Your task to perform on an android device: change the upload size in google photos Image 0: 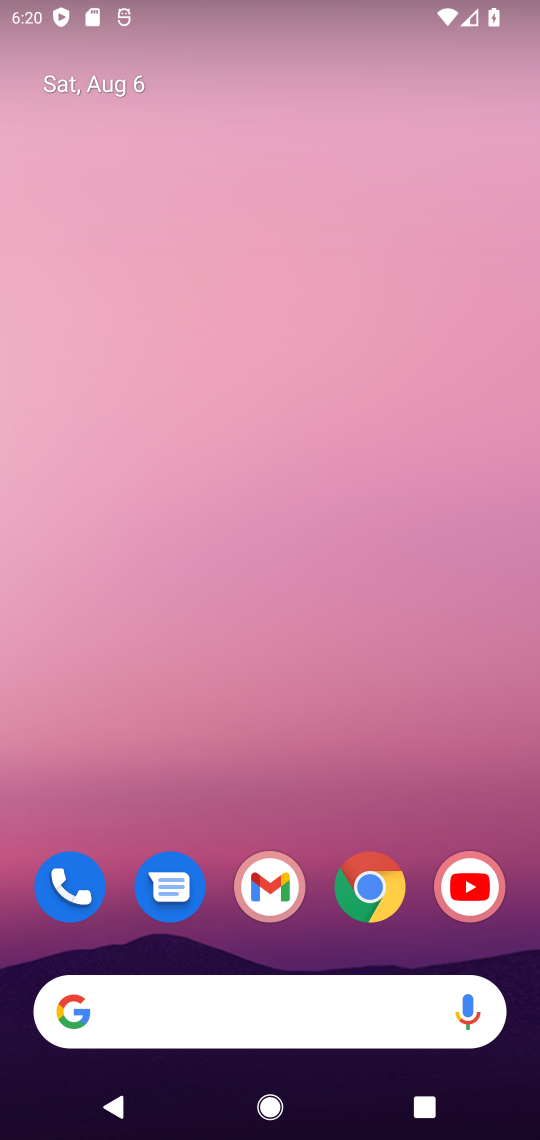
Step 0: drag from (231, 539) to (204, 493)
Your task to perform on an android device: change the upload size in google photos Image 1: 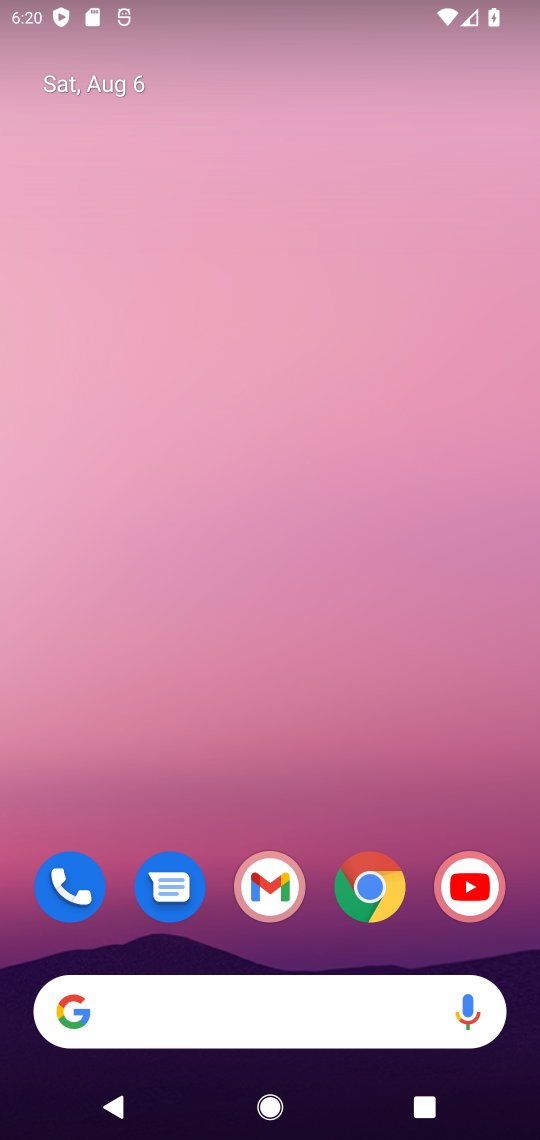
Step 1: drag from (299, 900) to (112, 256)
Your task to perform on an android device: change the upload size in google photos Image 2: 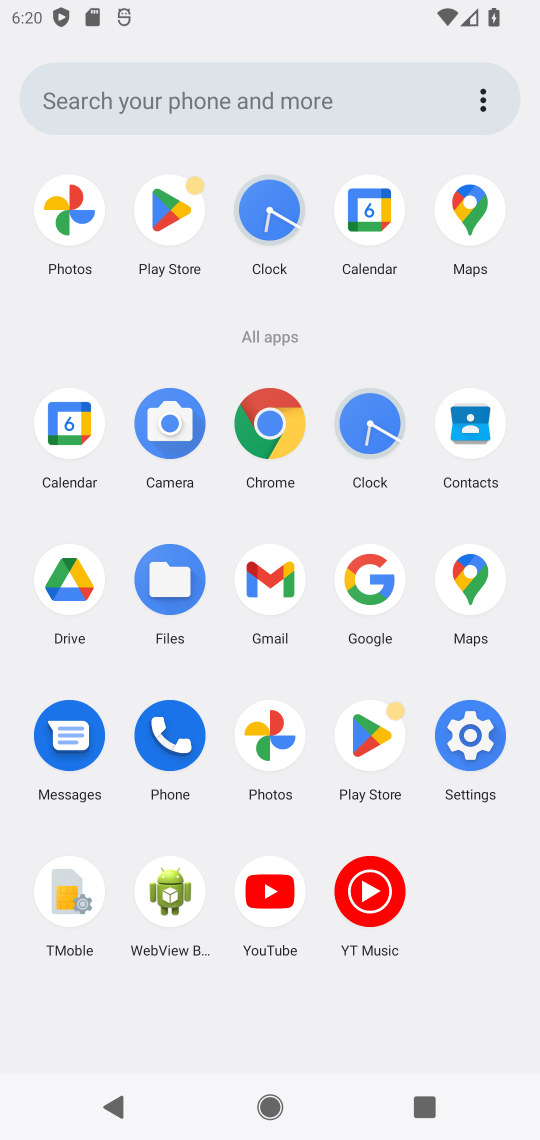
Step 2: drag from (256, 667) to (302, 511)
Your task to perform on an android device: change the upload size in google photos Image 3: 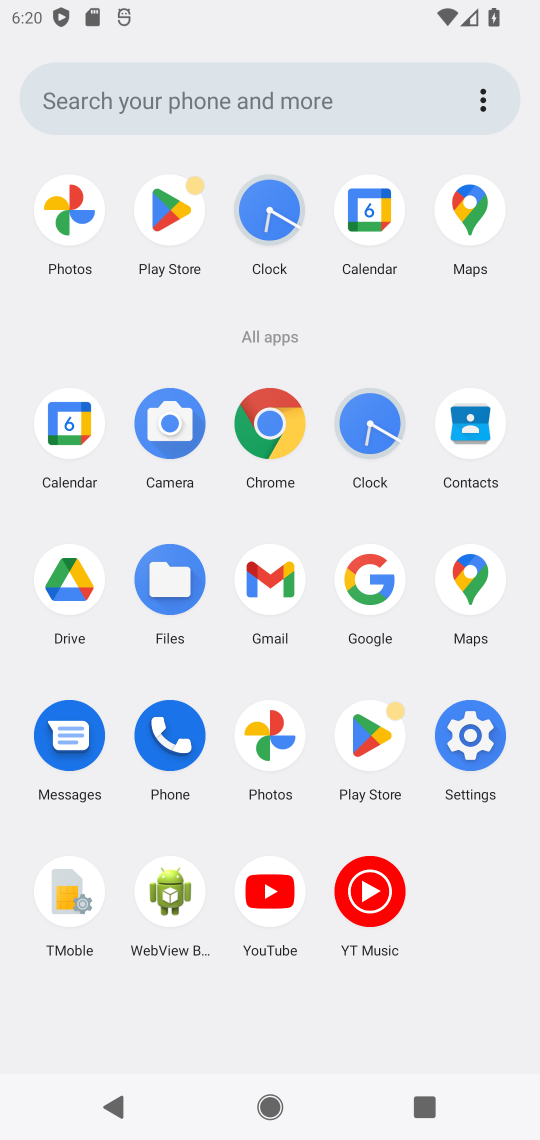
Step 3: click (270, 756)
Your task to perform on an android device: change the upload size in google photos Image 4: 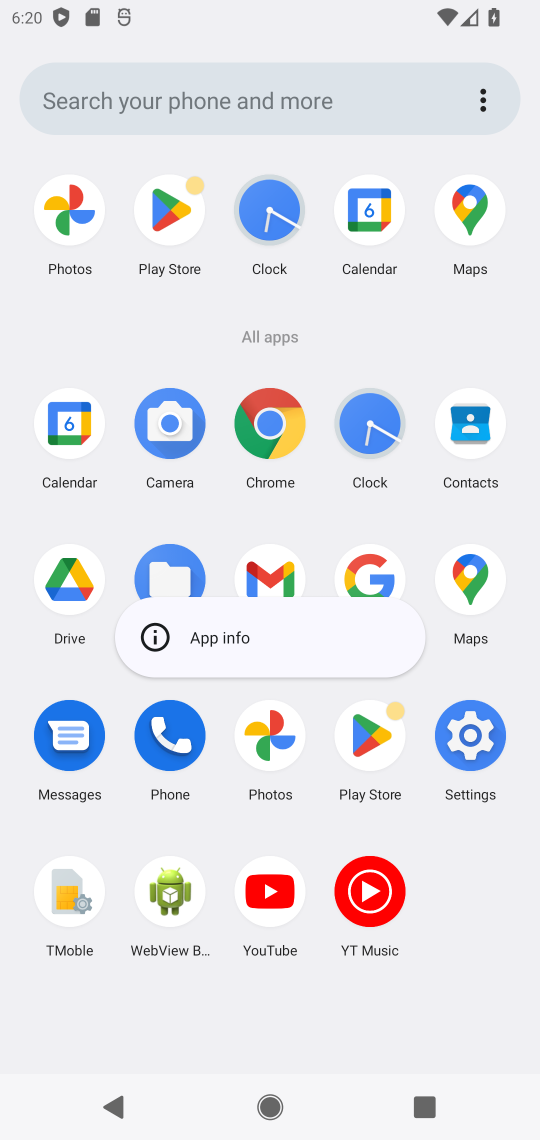
Step 4: click (279, 738)
Your task to perform on an android device: change the upload size in google photos Image 5: 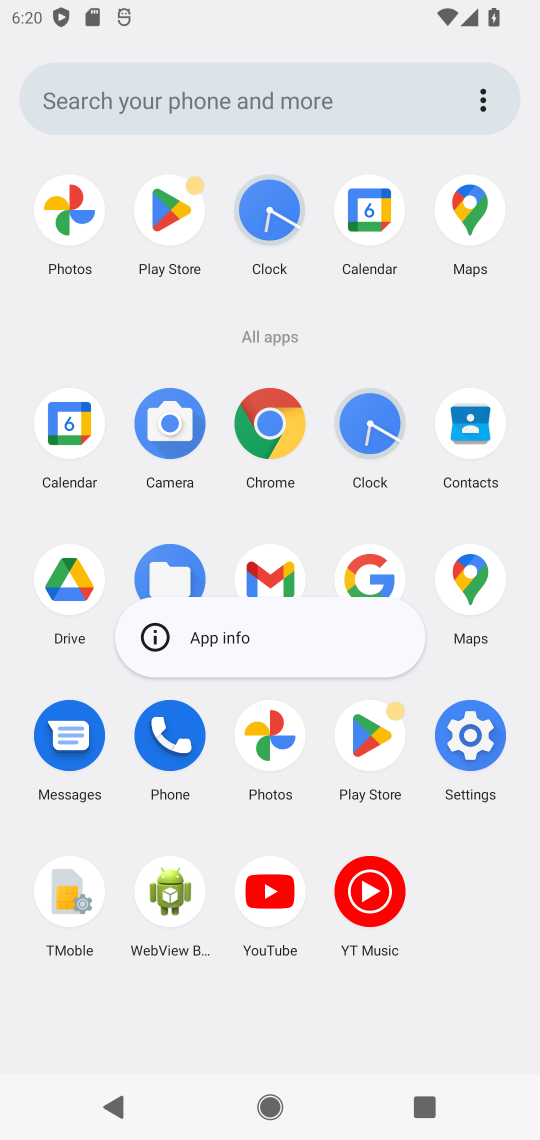
Step 5: click (261, 751)
Your task to perform on an android device: change the upload size in google photos Image 6: 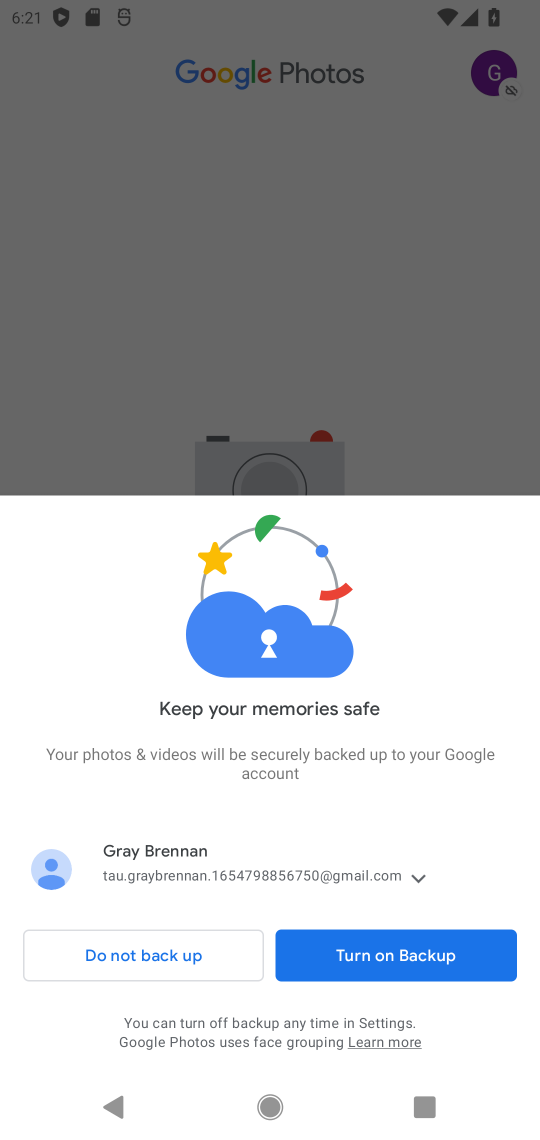
Step 6: click (74, 279)
Your task to perform on an android device: change the upload size in google photos Image 7: 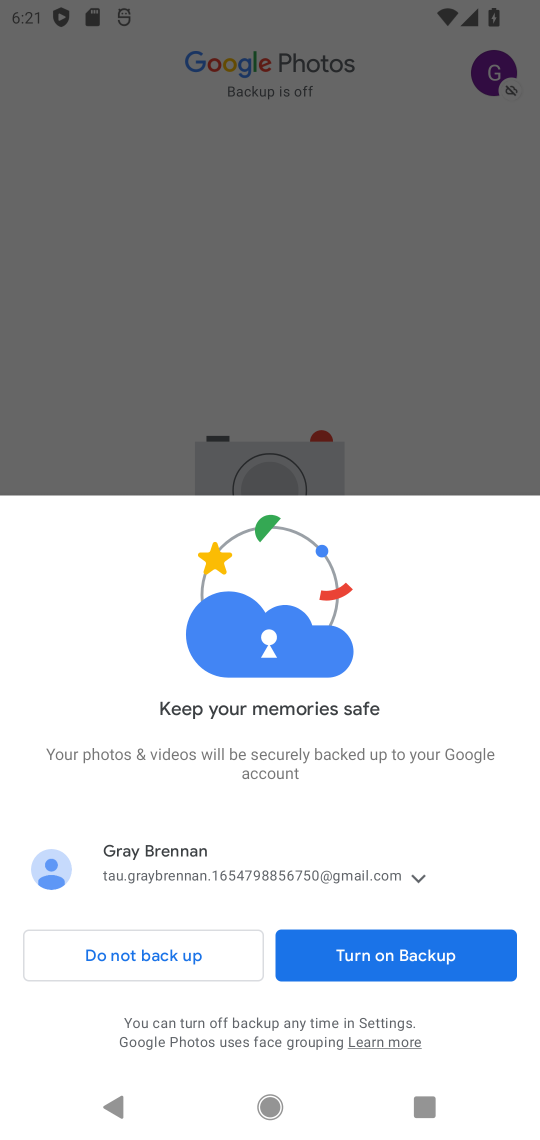
Step 7: click (172, 943)
Your task to perform on an android device: change the upload size in google photos Image 8: 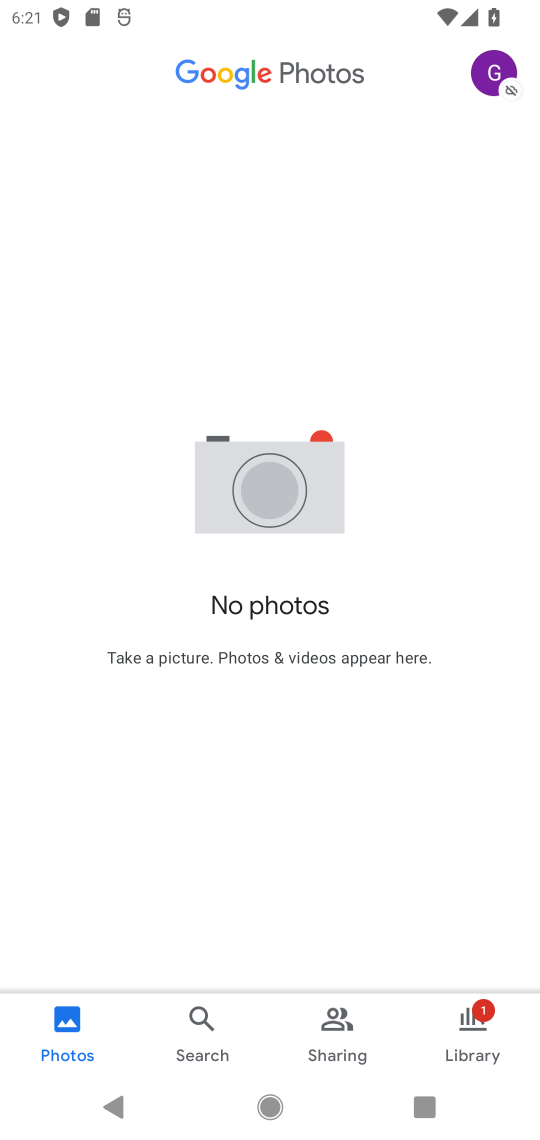
Step 8: click (498, 95)
Your task to perform on an android device: change the upload size in google photos Image 9: 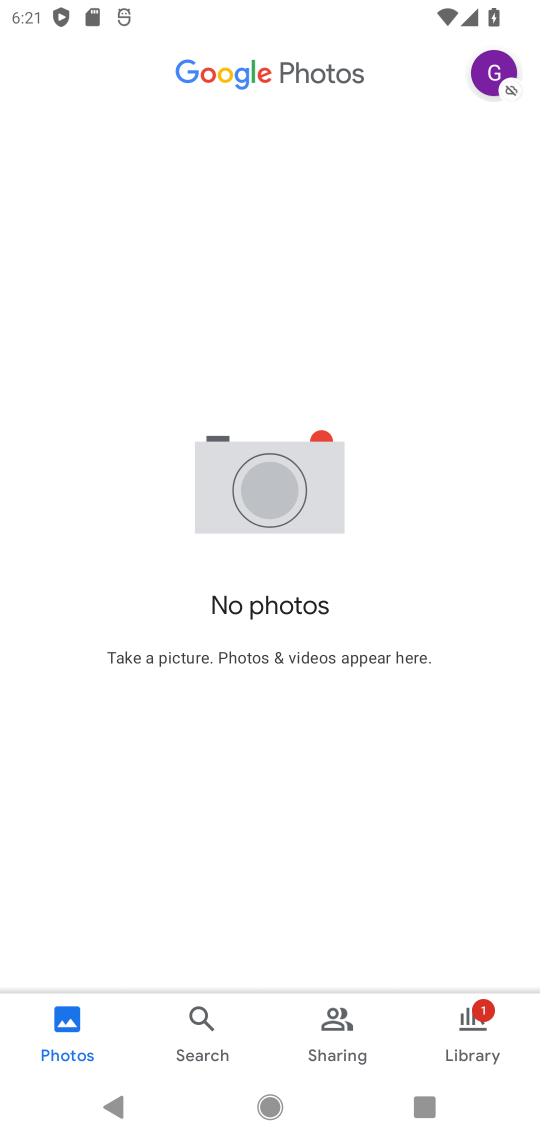
Step 9: click (499, 94)
Your task to perform on an android device: change the upload size in google photos Image 10: 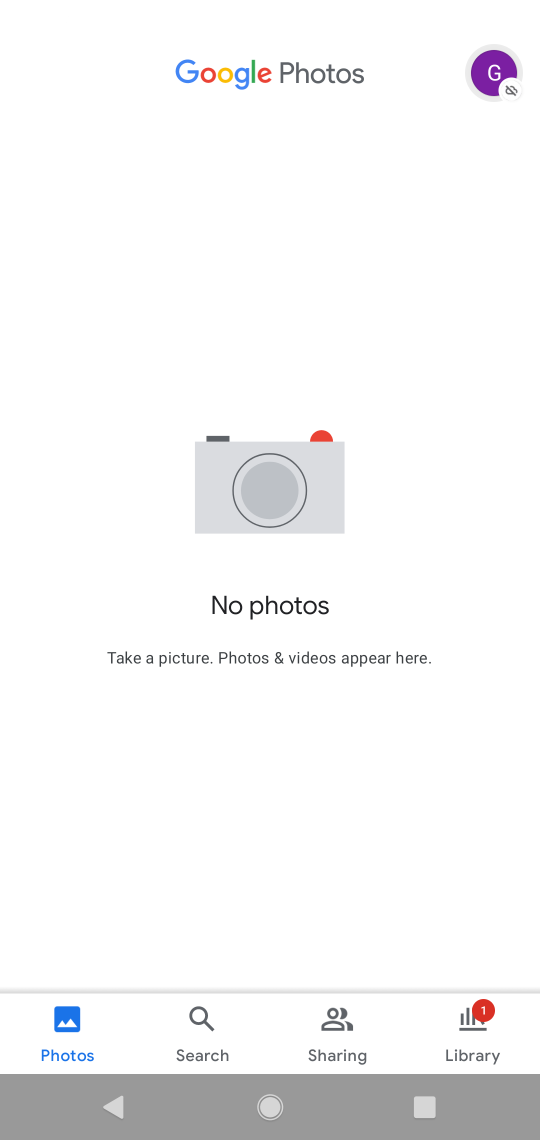
Step 10: drag from (499, 94) to (176, 776)
Your task to perform on an android device: change the upload size in google photos Image 11: 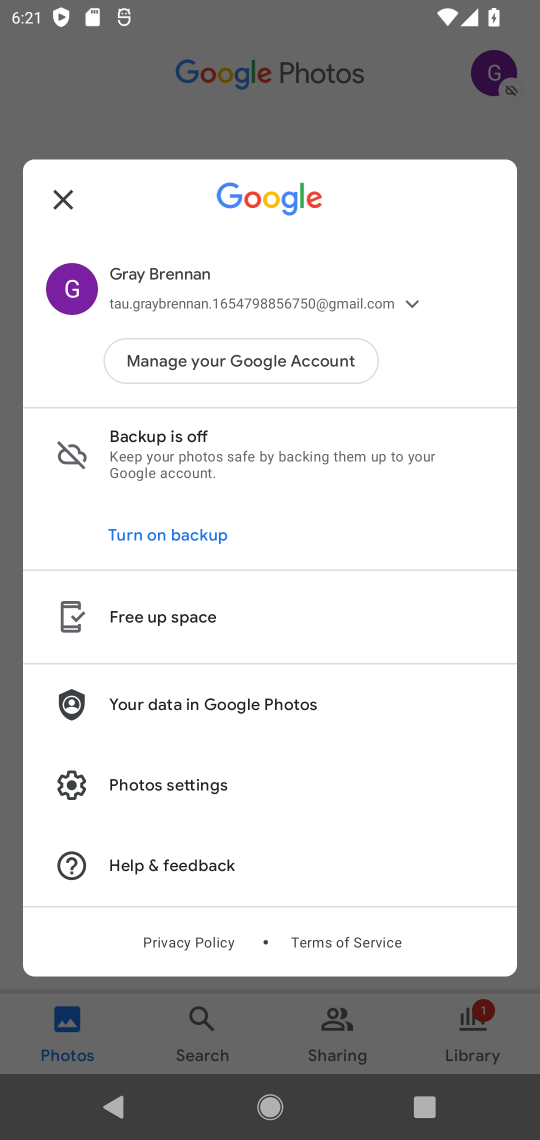
Step 11: click (171, 779)
Your task to perform on an android device: change the upload size in google photos Image 12: 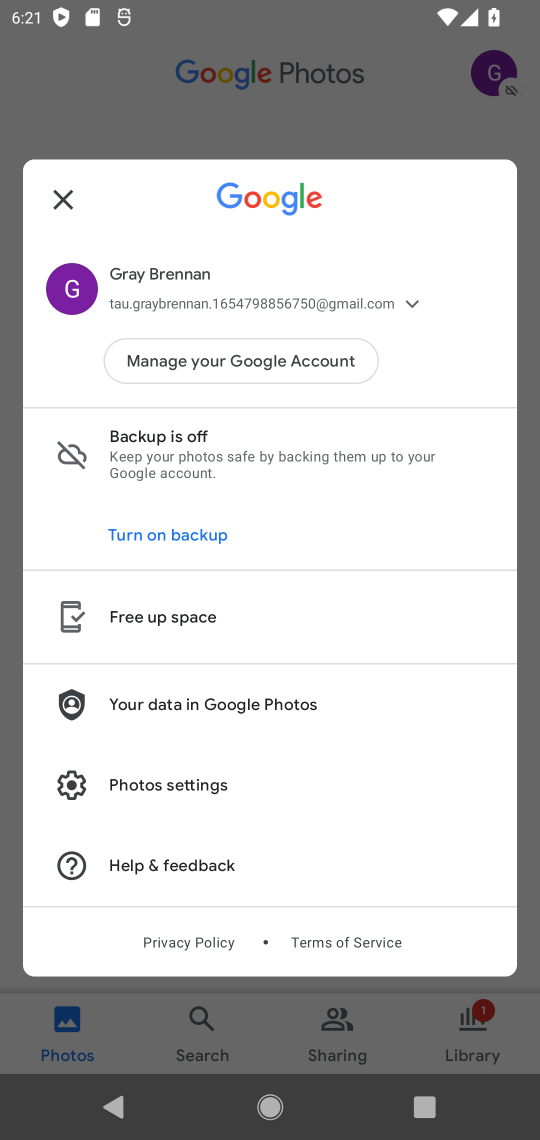
Step 12: click (171, 779)
Your task to perform on an android device: change the upload size in google photos Image 13: 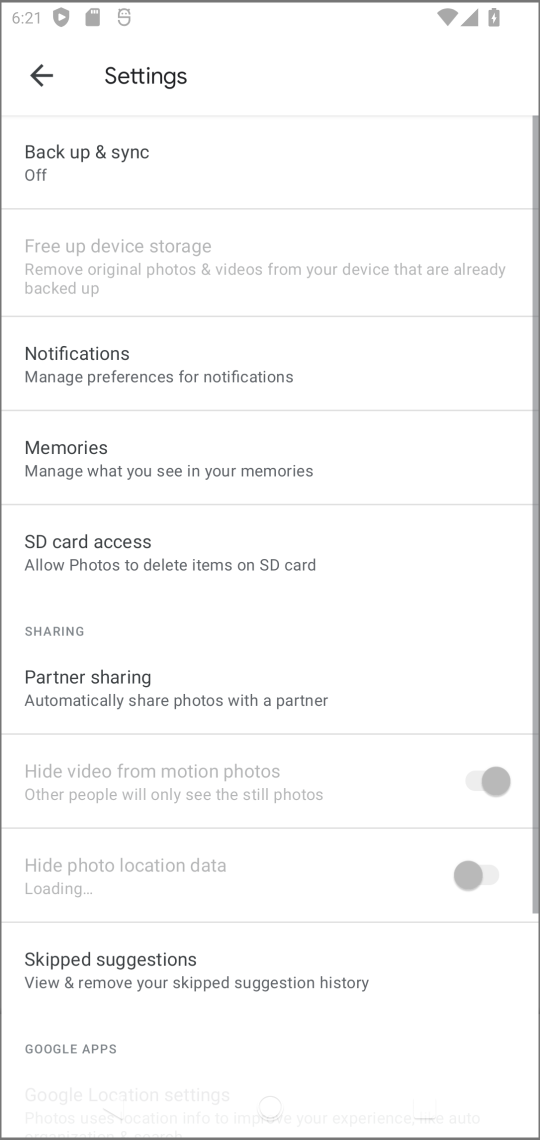
Step 13: click (197, 764)
Your task to perform on an android device: change the upload size in google photos Image 14: 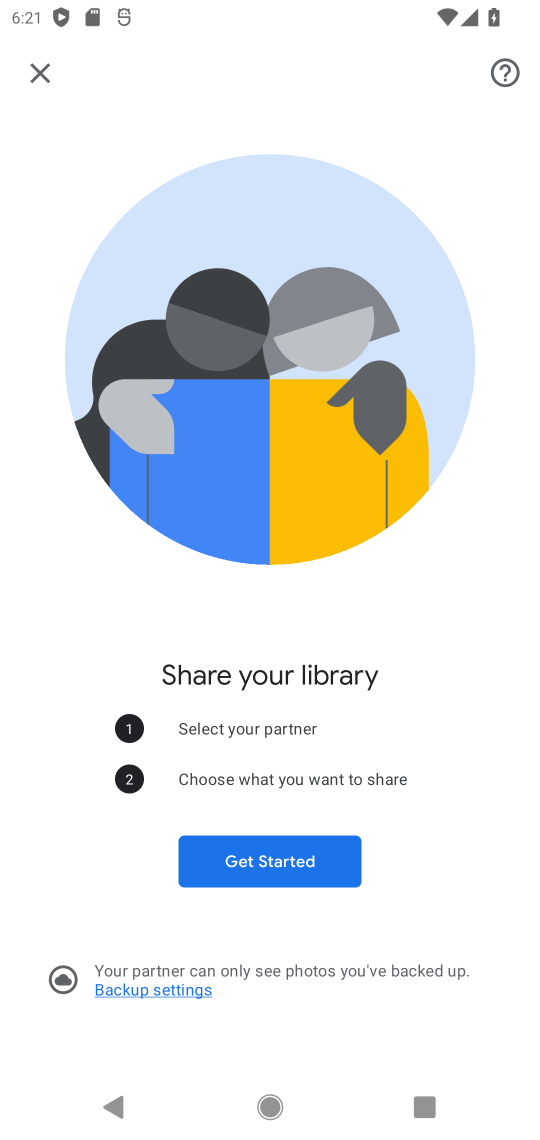
Step 14: click (32, 67)
Your task to perform on an android device: change the upload size in google photos Image 15: 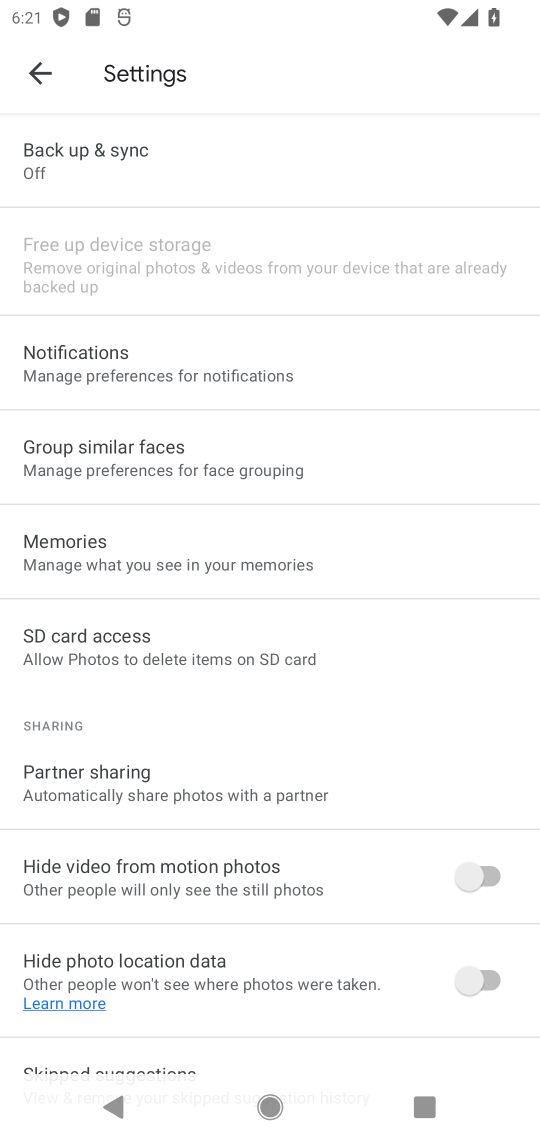
Step 15: click (42, 156)
Your task to perform on an android device: change the upload size in google photos Image 16: 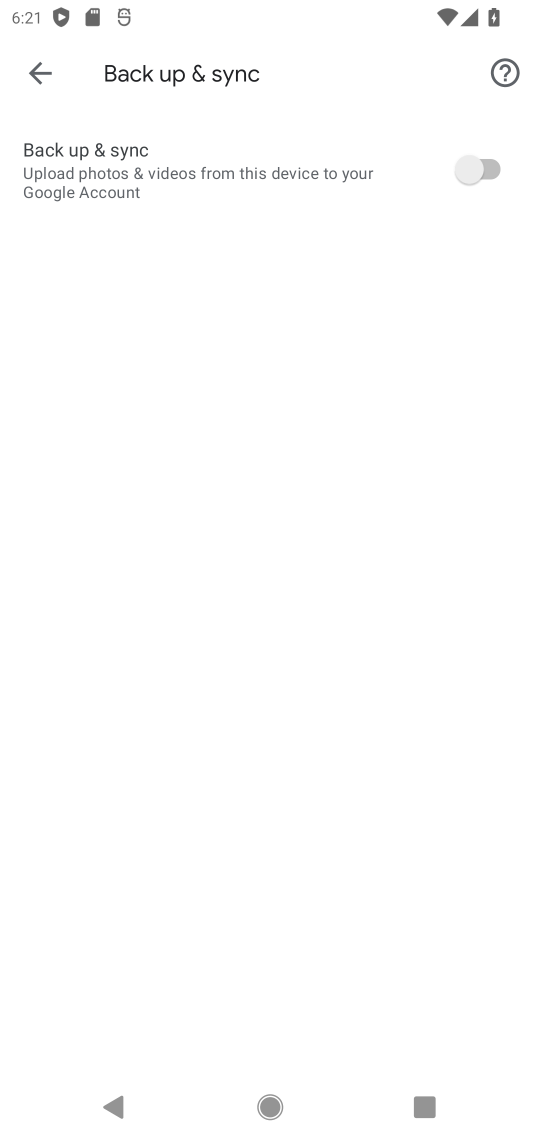
Step 16: click (467, 151)
Your task to perform on an android device: change the upload size in google photos Image 17: 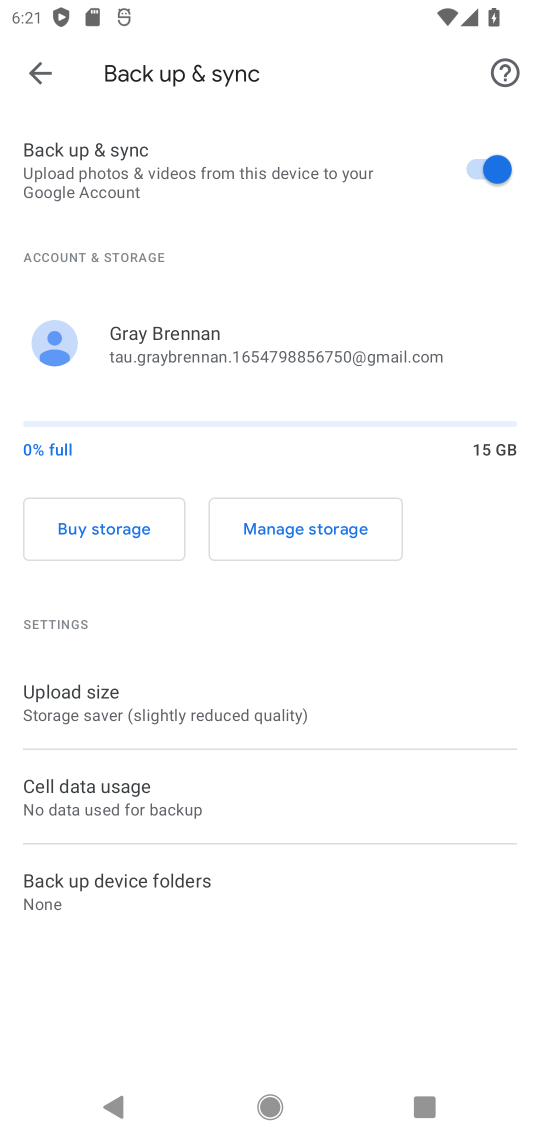
Step 17: click (120, 717)
Your task to perform on an android device: change the upload size in google photos Image 18: 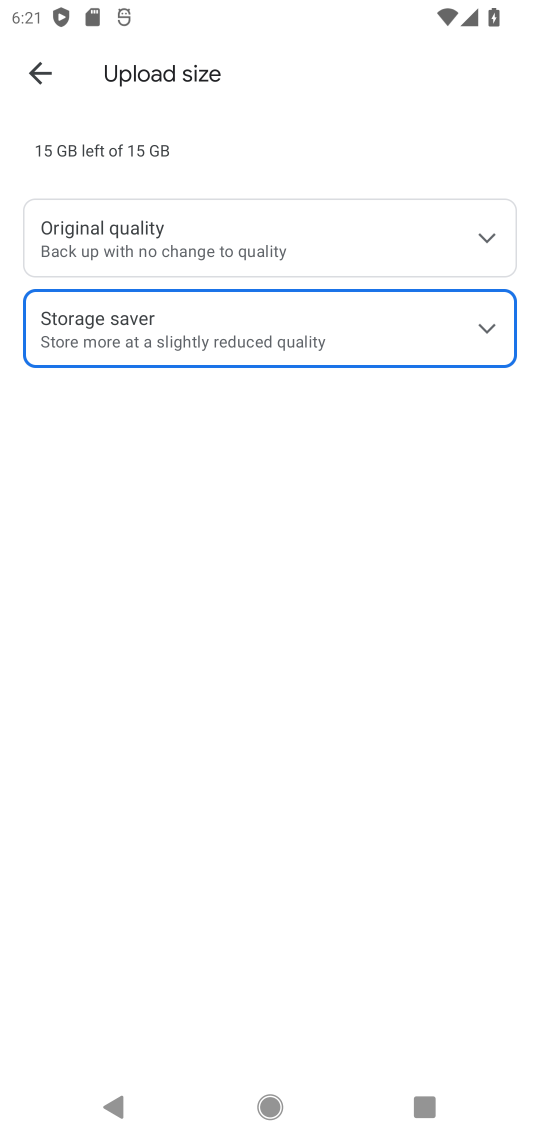
Step 18: click (431, 226)
Your task to perform on an android device: change the upload size in google photos Image 19: 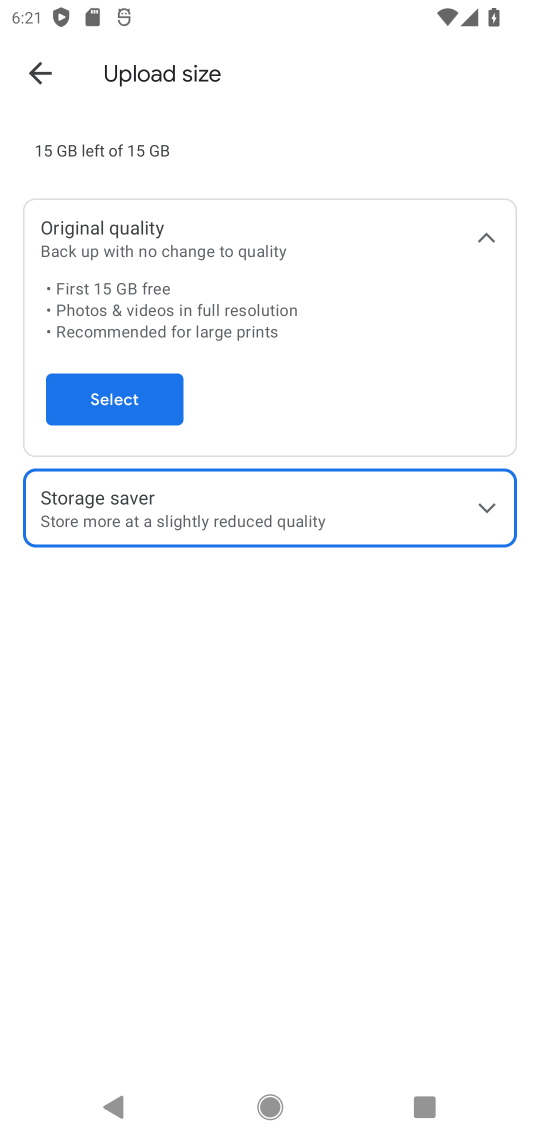
Step 19: click (112, 407)
Your task to perform on an android device: change the upload size in google photos Image 20: 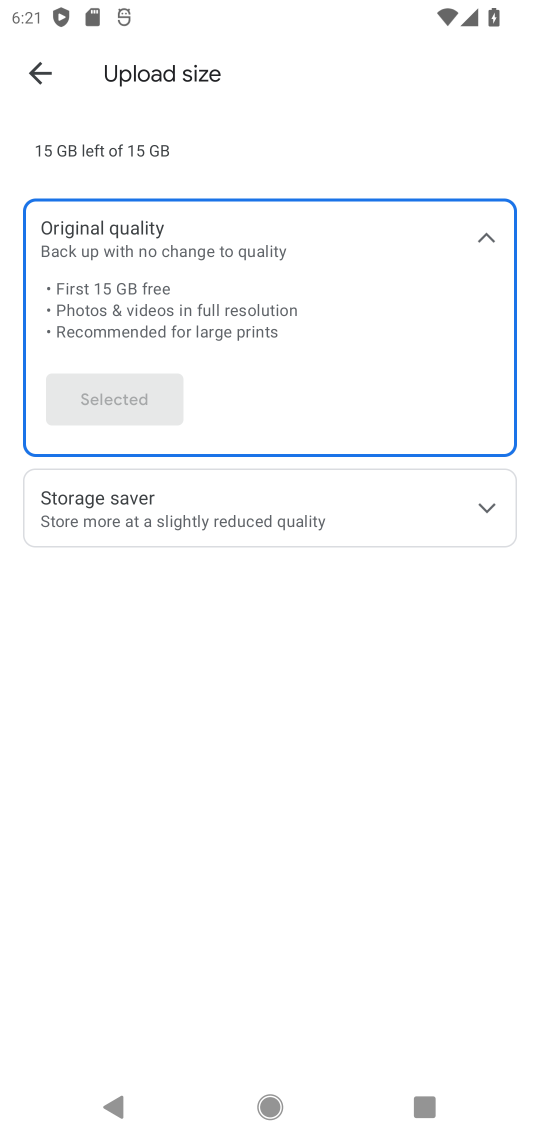
Step 20: task complete